Your task to perform on an android device: Open Google Chrome and click the shortcut for Amazon.com Image 0: 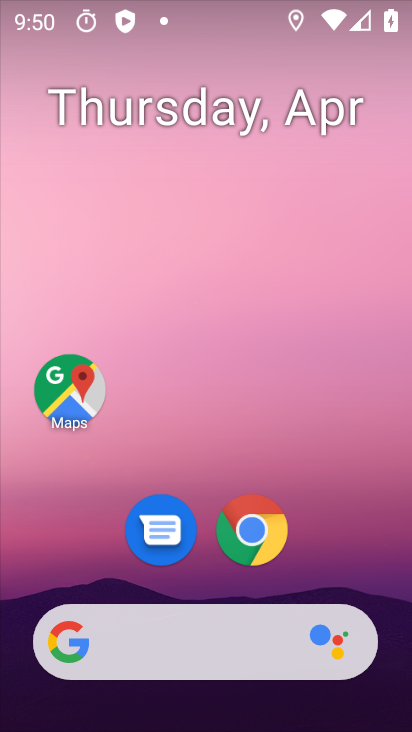
Step 0: drag from (346, 566) to (277, 94)
Your task to perform on an android device: Open Google Chrome and click the shortcut for Amazon.com Image 1: 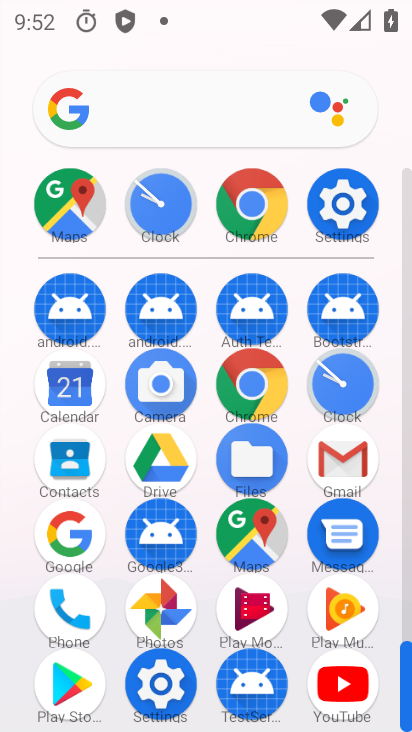
Step 1: click (241, 382)
Your task to perform on an android device: Open Google Chrome and click the shortcut for Amazon.com Image 2: 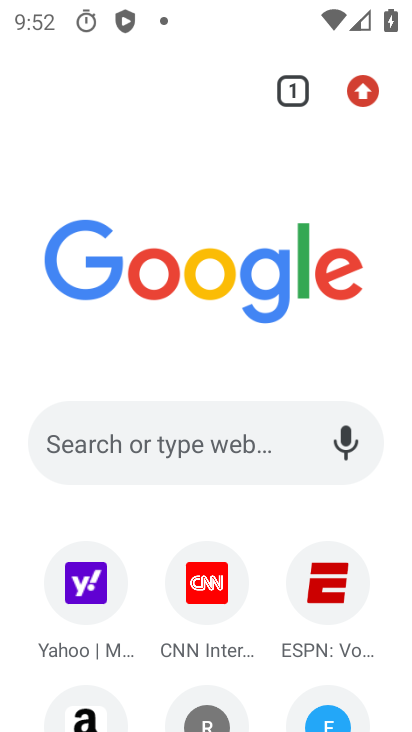
Step 2: click (79, 708)
Your task to perform on an android device: Open Google Chrome and click the shortcut for Amazon.com Image 3: 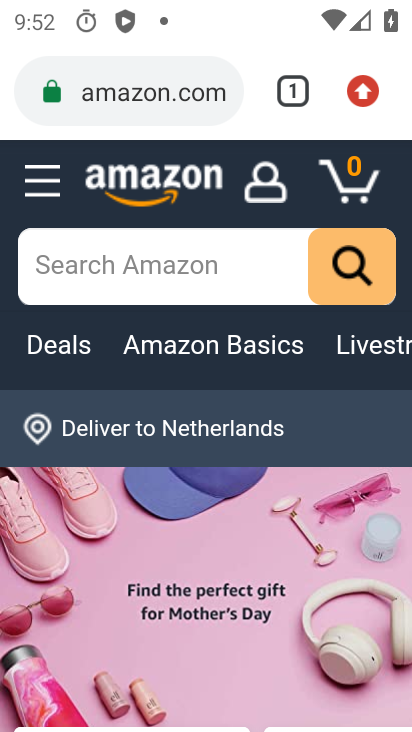
Step 3: task complete